Your task to perform on an android device: turn off priority inbox in the gmail app Image 0: 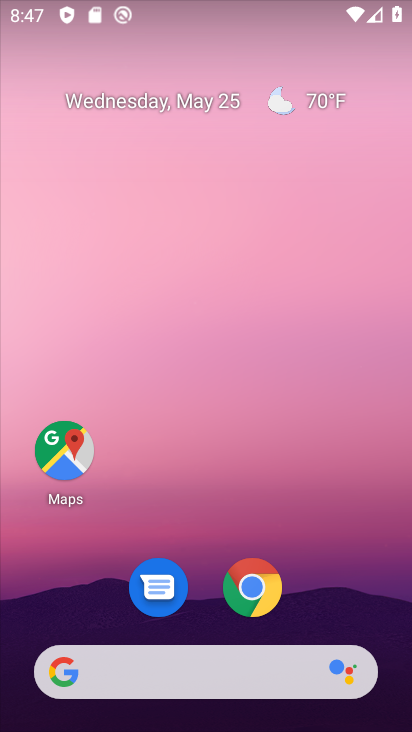
Step 0: drag from (202, 617) to (234, 9)
Your task to perform on an android device: turn off priority inbox in the gmail app Image 1: 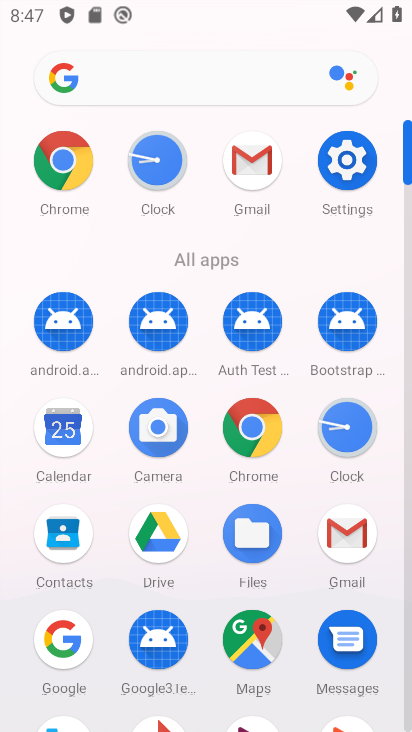
Step 1: click (352, 534)
Your task to perform on an android device: turn off priority inbox in the gmail app Image 2: 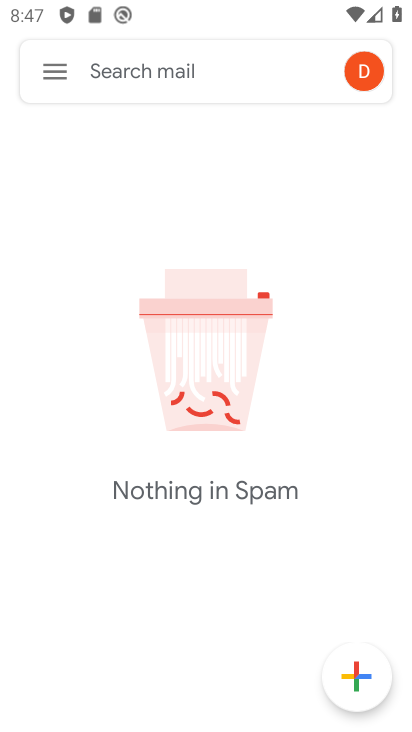
Step 2: click (63, 75)
Your task to perform on an android device: turn off priority inbox in the gmail app Image 3: 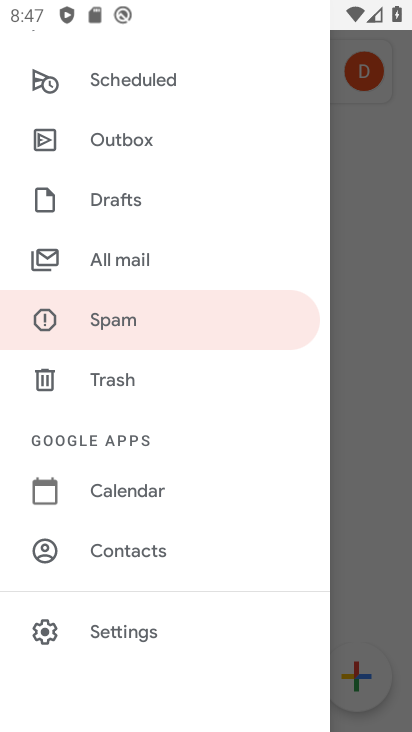
Step 3: drag from (116, 570) to (159, 317)
Your task to perform on an android device: turn off priority inbox in the gmail app Image 4: 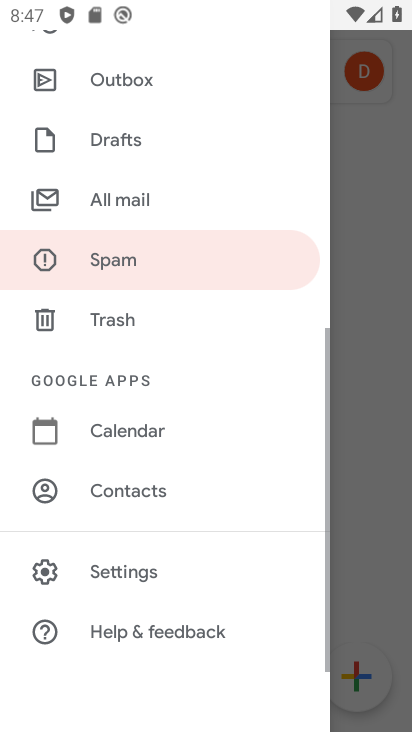
Step 4: click (117, 584)
Your task to perform on an android device: turn off priority inbox in the gmail app Image 5: 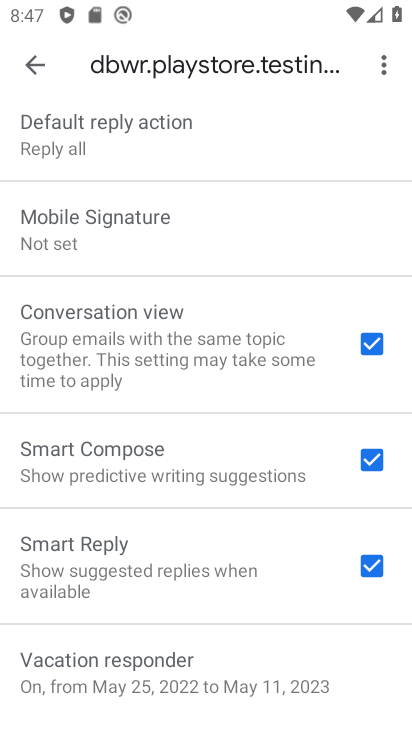
Step 5: drag from (205, 187) to (318, 731)
Your task to perform on an android device: turn off priority inbox in the gmail app Image 6: 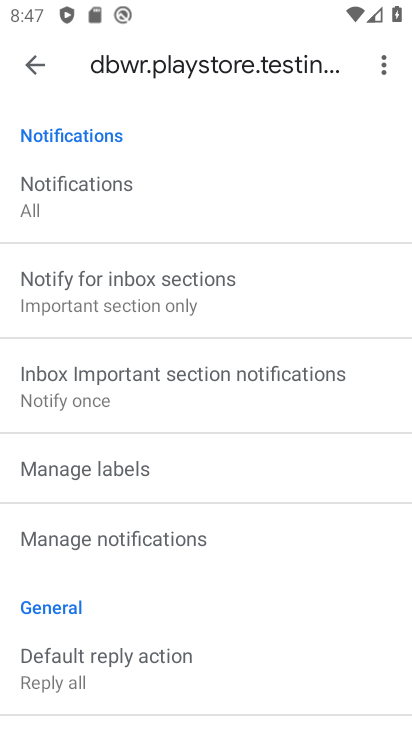
Step 6: drag from (175, 226) to (207, 509)
Your task to perform on an android device: turn off priority inbox in the gmail app Image 7: 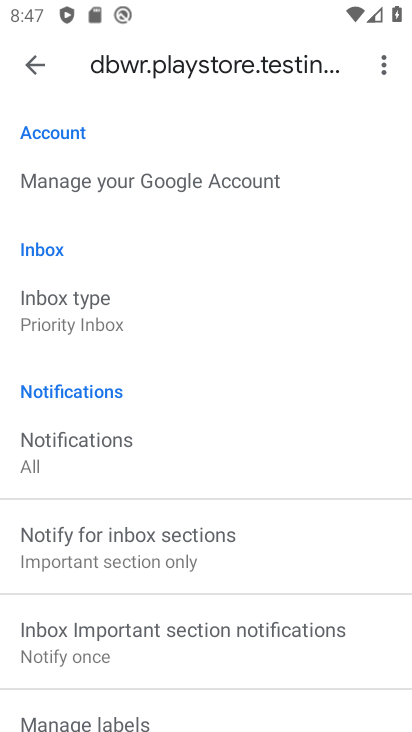
Step 7: click (104, 313)
Your task to perform on an android device: turn off priority inbox in the gmail app Image 8: 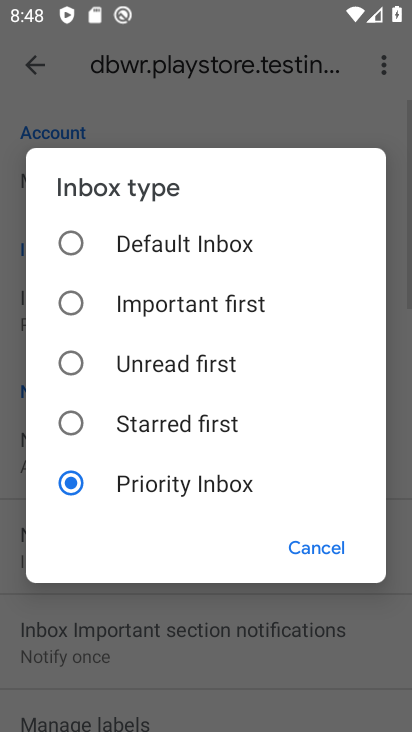
Step 8: click (142, 253)
Your task to perform on an android device: turn off priority inbox in the gmail app Image 9: 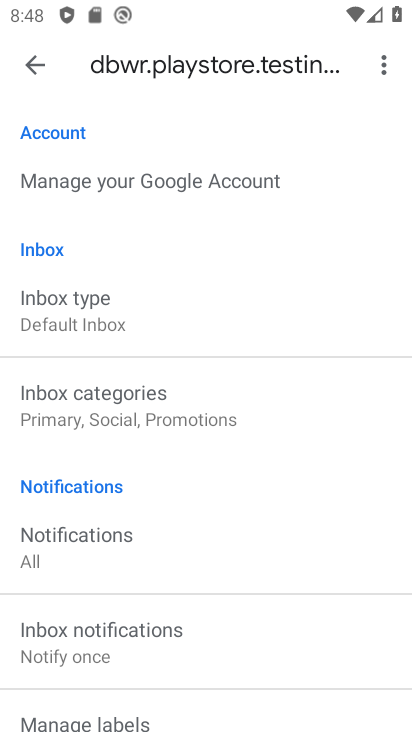
Step 9: task complete